Your task to perform on an android device: Set the phone to "Do not disturb". Image 0: 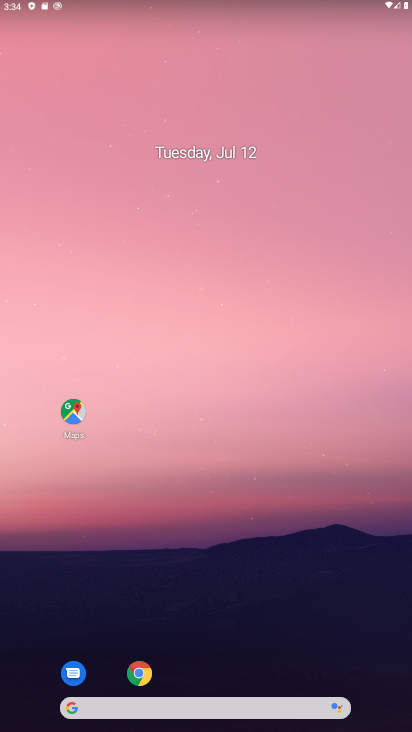
Step 0: drag from (182, 702) to (205, 276)
Your task to perform on an android device: Set the phone to "Do not disturb". Image 1: 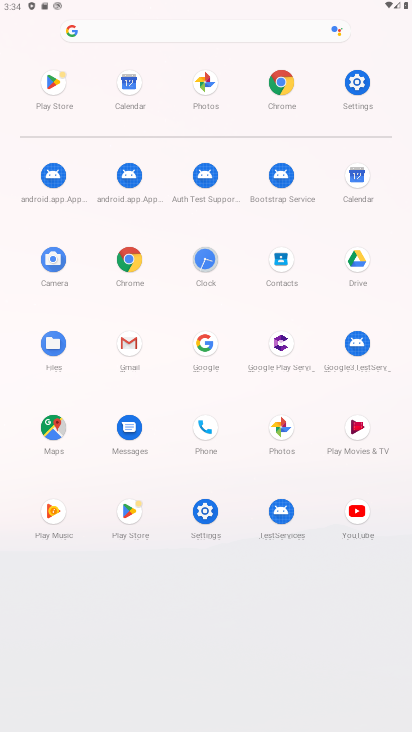
Step 1: click (358, 83)
Your task to perform on an android device: Set the phone to "Do not disturb". Image 2: 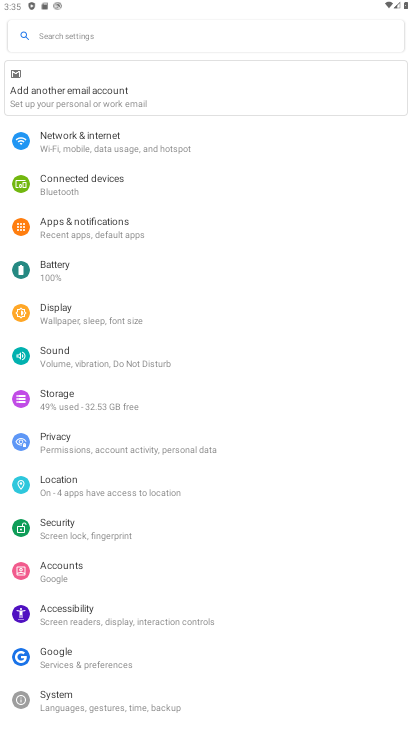
Step 2: click (107, 361)
Your task to perform on an android device: Set the phone to "Do not disturb". Image 3: 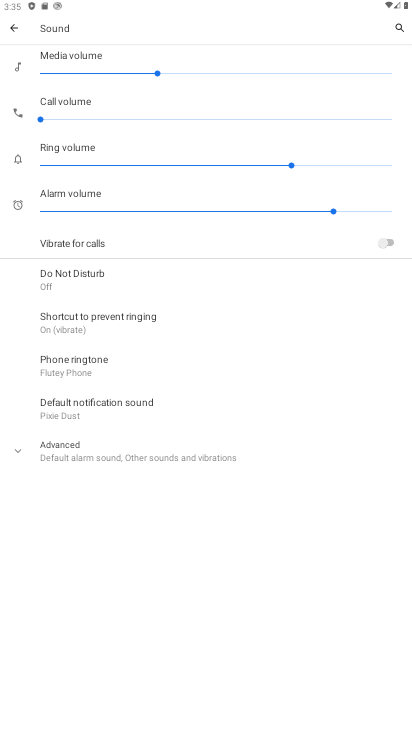
Step 3: click (77, 277)
Your task to perform on an android device: Set the phone to "Do not disturb". Image 4: 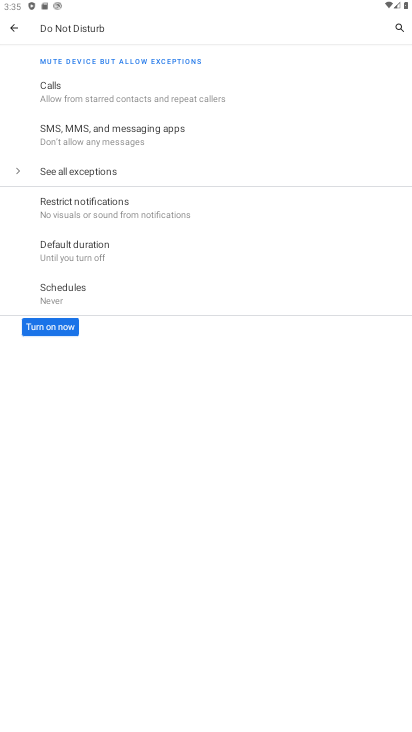
Step 4: click (60, 330)
Your task to perform on an android device: Set the phone to "Do not disturb". Image 5: 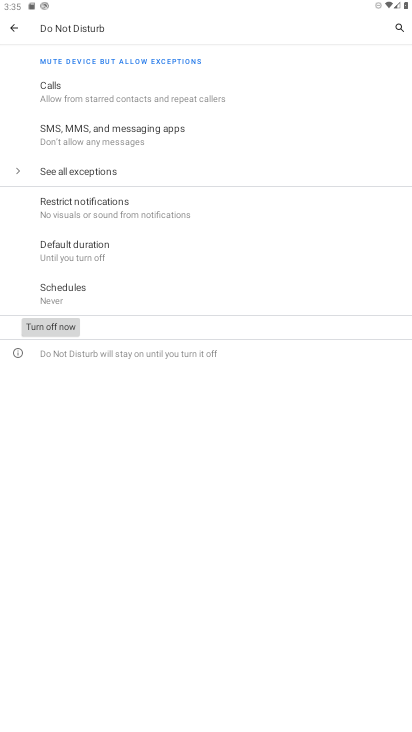
Step 5: task complete